Your task to perform on an android device: manage bookmarks in the chrome app Image 0: 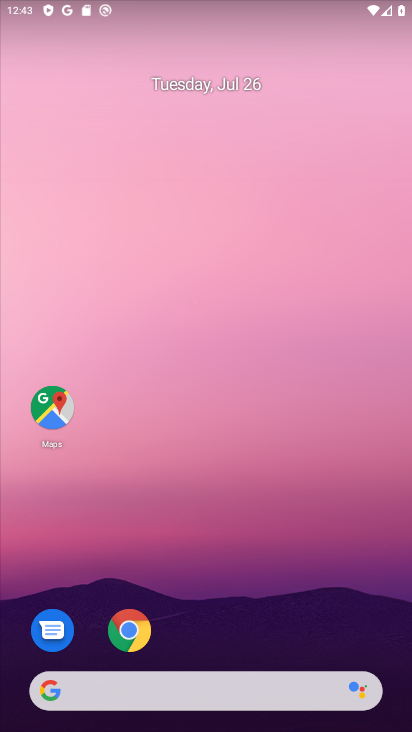
Step 0: click (132, 630)
Your task to perform on an android device: manage bookmarks in the chrome app Image 1: 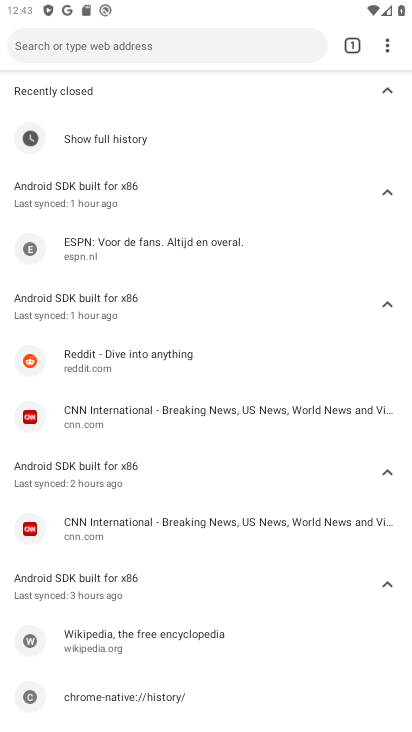
Step 1: click (386, 42)
Your task to perform on an android device: manage bookmarks in the chrome app Image 2: 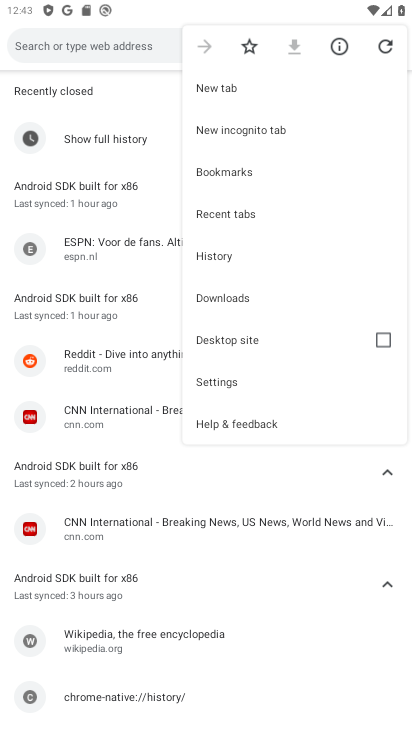
Step 2: click (228, 169)
Your task to perform on an android device: manage bookmarks in the chrome app Image 3: 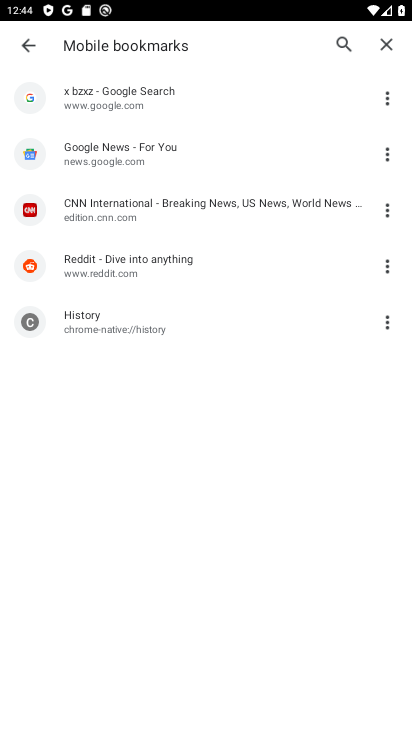
Step 3: task complete